Your task to perform on an android device: See recent photos Image 0: 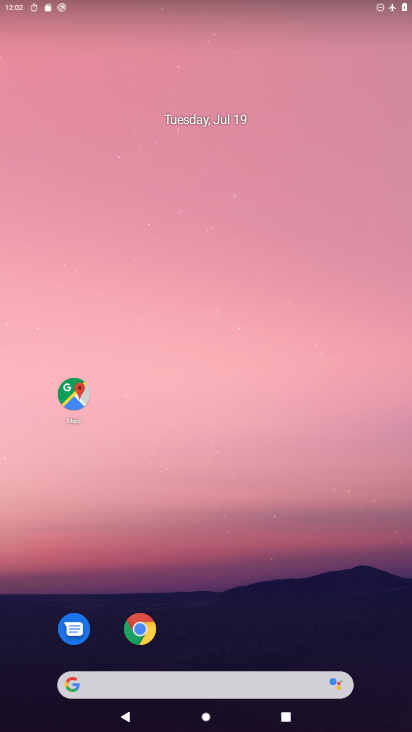
Step 0: drag from (306, 600) to (289, 128)
Your task to perform on an android device: See recent photos Image 1: 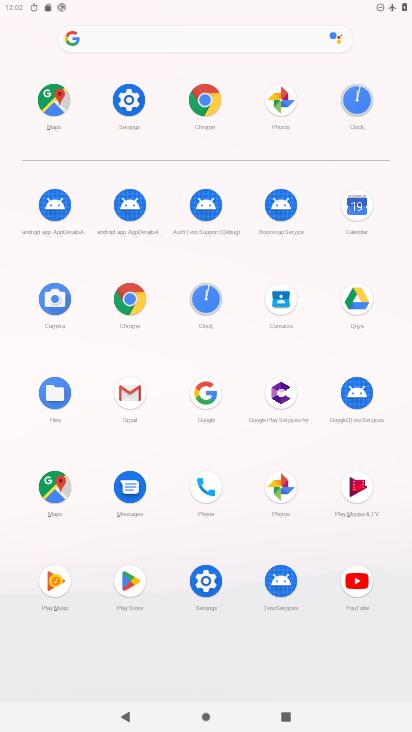
Step 1: click (279, 482)
Your task to perform on an android device: See recent photos Image 2: 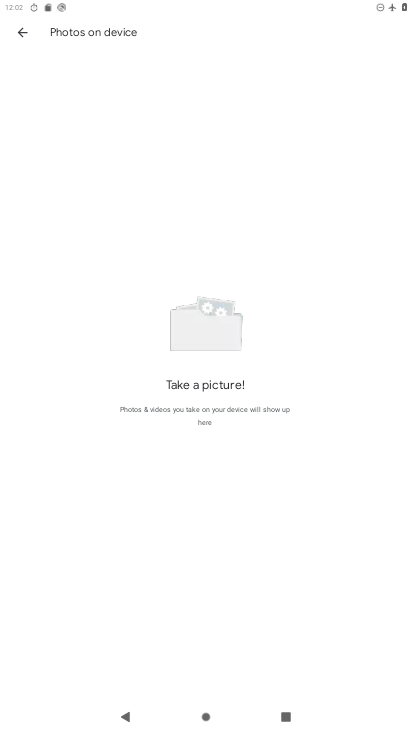
Step 2: click (21, 26)
Your task to perform on an android device: See recent photos Image 3: 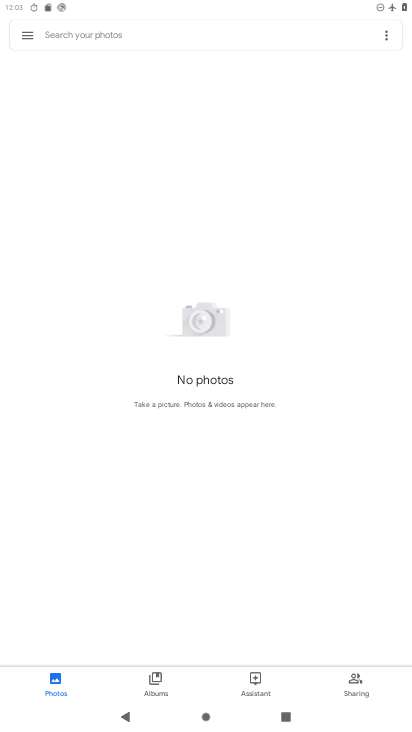
Step 3: task complete